Your task to perform on an android device: toggle priority inbox in the gmail app Image 0: 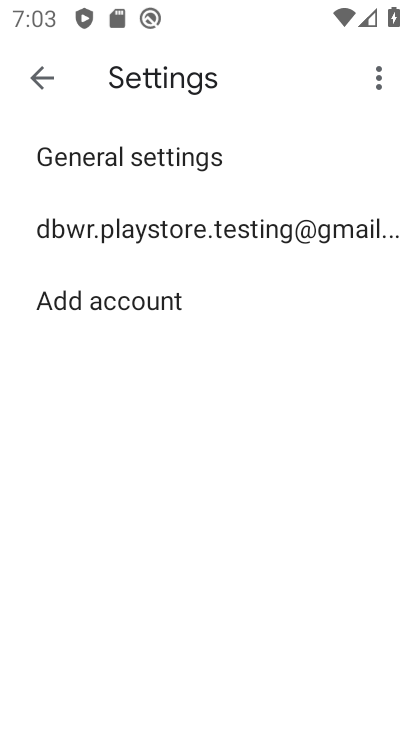
Step 0: press home button
Your task to perform on an android device: toggle priority inbox in the gmail app Image 1: 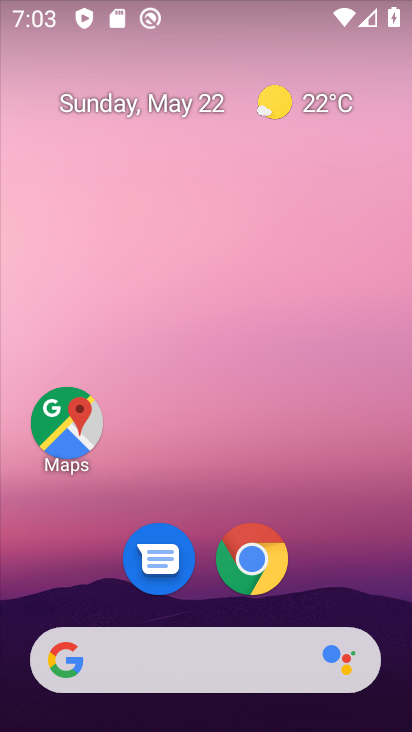
Step 1: drag from (285, 687) to (282, 210)
Your task to perform on an android device: toggle priority inbox in the gmail app Image 2: 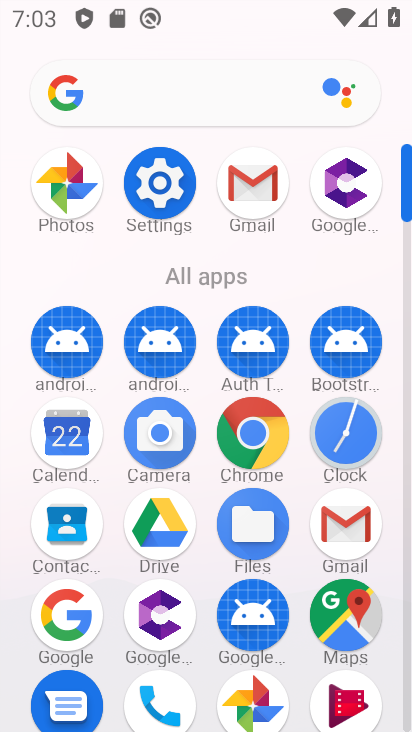
Step 2: click (353, 522)
Your task to perform on an android device: toggle priority inbox in the gmail app Image 3: 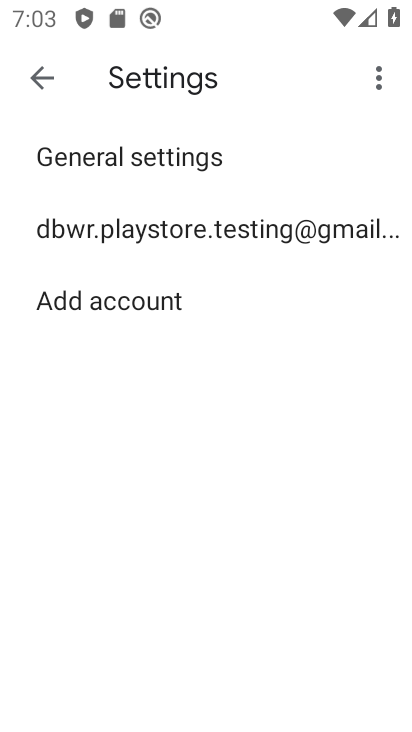
Step 3: click (257, 231)
Your task to perform on an android device: toggle priority inbox in the gmail app Image 4: 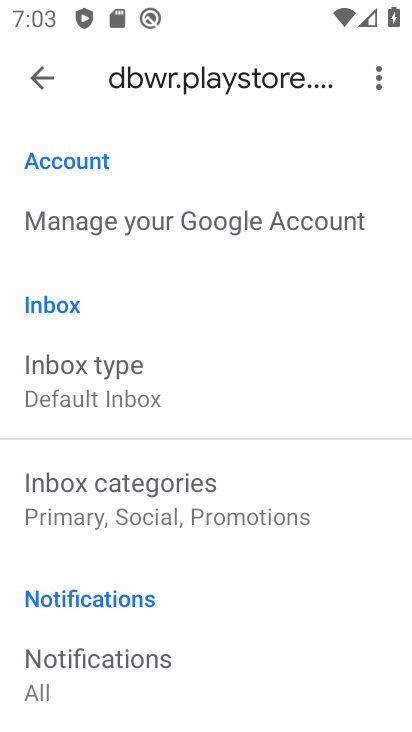
Step 4: click (172, 378)
Your task to perform on an android device: toggle priority inbox in the gmail app Image 5: 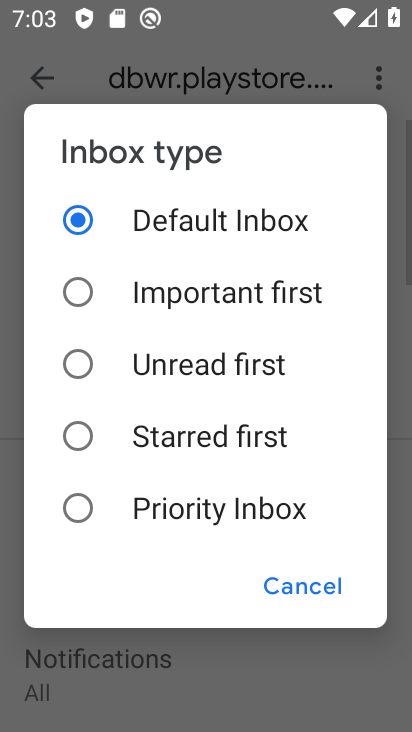
Step 5: click (208, 516)
Your task to perform on an android device: toggle priority inbox in the gmail app Image 6: 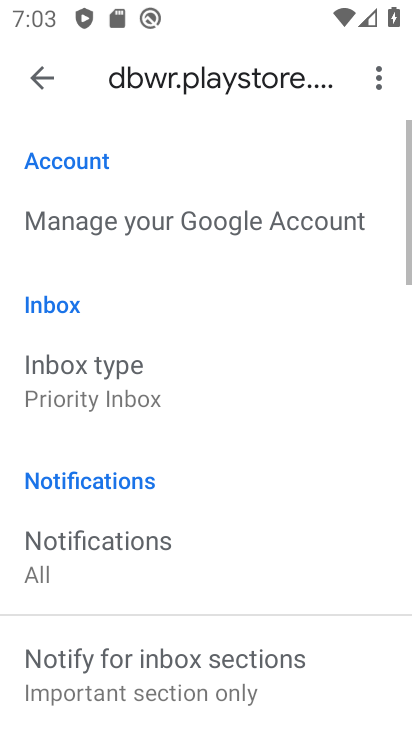
Step 6: click (180, 398)
Your task to perform on an android device: toggle priority inbox in the gmail app Image 7: 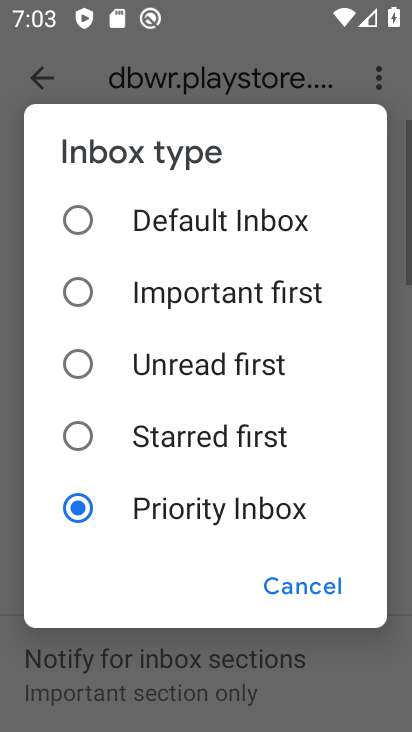
Step 7: task complete